Your task to perform on an android device: turn on priority inbox in the gmail app Image 0: 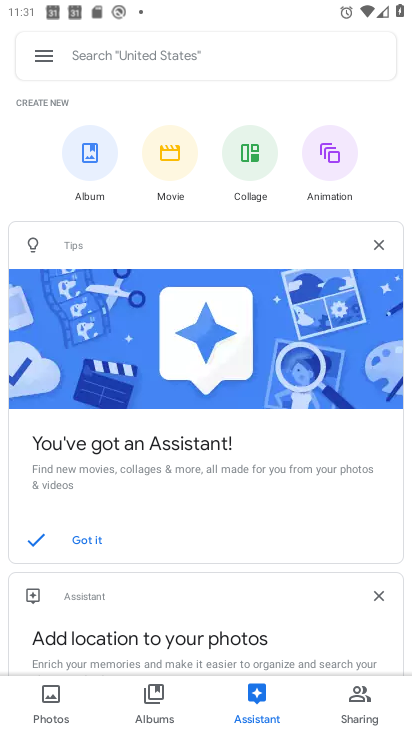
Step 0: press back button
Your task to perform on an android device: turn on priority inbox in the gmail app Image 1: 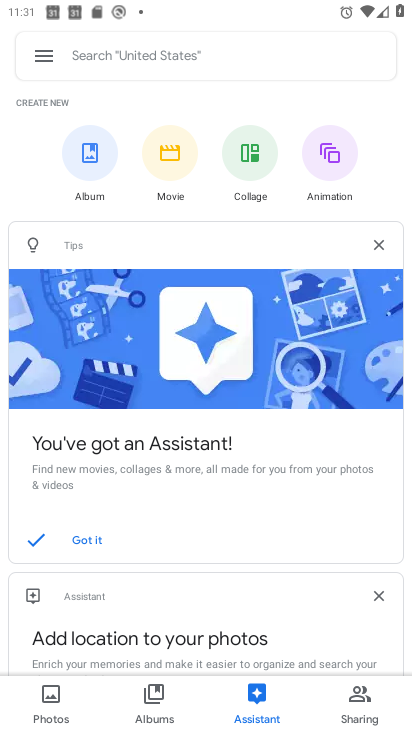
Step 1: press back button
Your task to perform on an android device: turn on priority inbox in the gmail app Image 2: 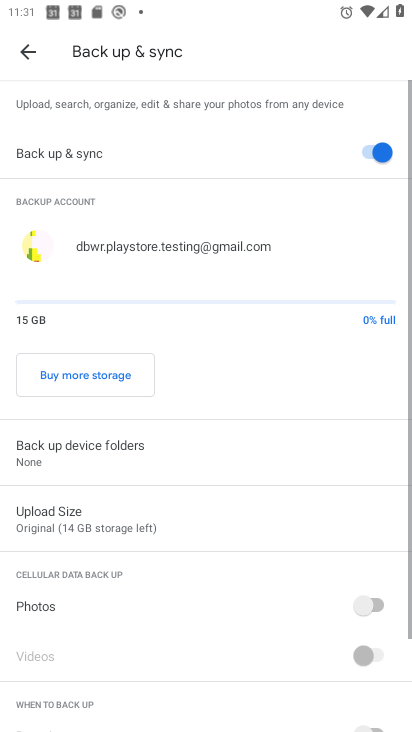
Step 2: press back button
Your task to perform on an android device: turn on priority inbox in the gmail app Image 3: 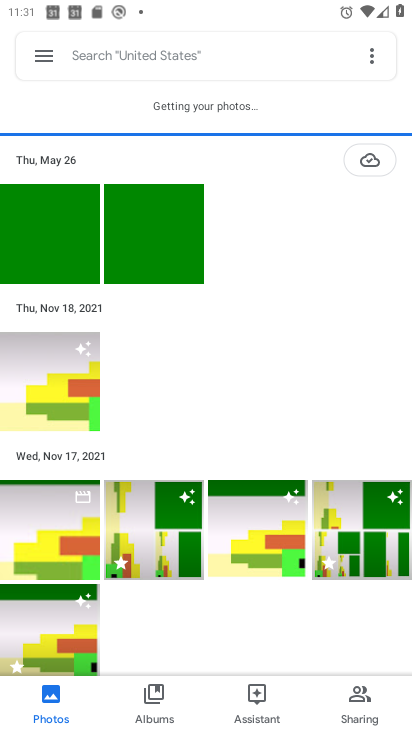
Step 3: press home button
Your task to perform on an android device: turn on priority inbox in the gmail app Image 4: 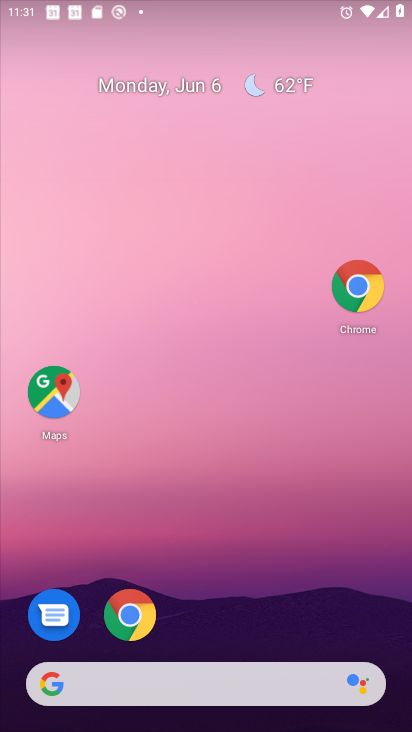
Step 4: drag from (294, 688) to (118, 112)
Your task to perform on an android device: turn on priority inbox in the gmail app Image 5: 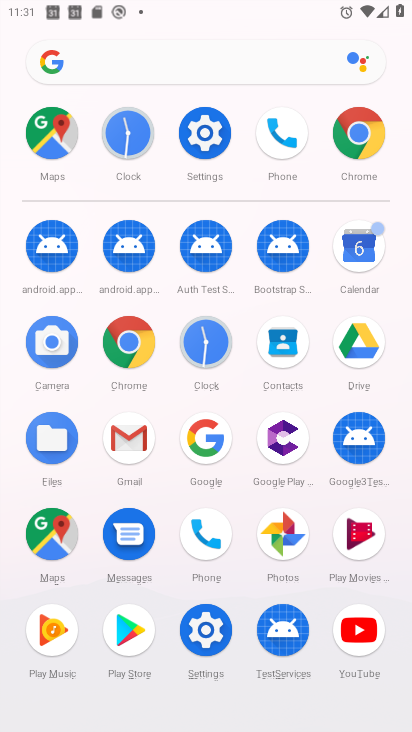
Step 5: click (134, 445)
Your task to perform on an android device: turn on priority inbox in the gmail app Image 6: 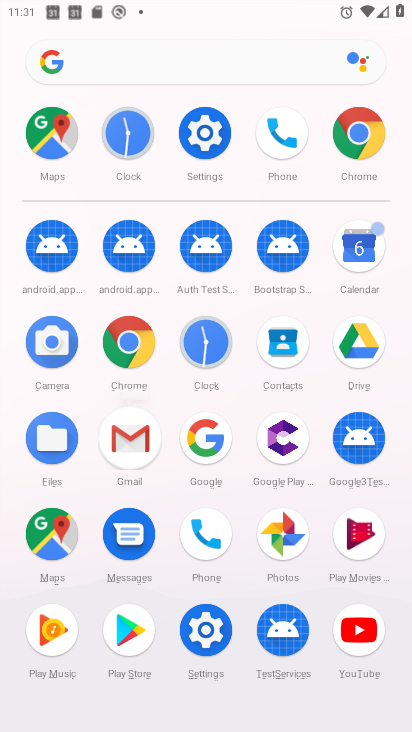
Step 6: click (134, 445)
Your task to perform on an android device: turn on priority inbox in the gmail app Image 7: 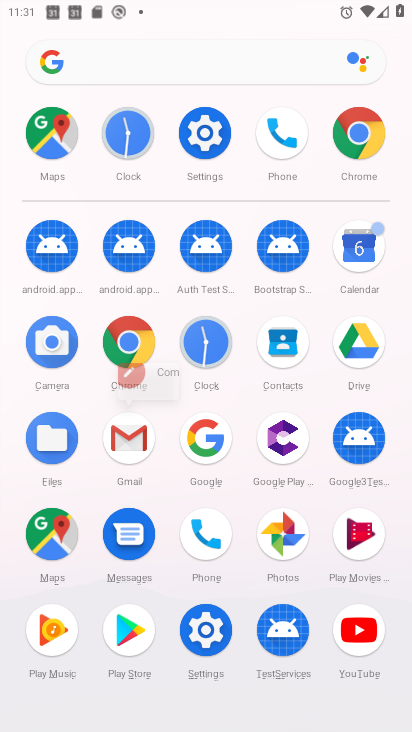
Step 7: click (134, 445)
Your task to perform on an android device: turn on priority inbox in the gmail app Image 8: 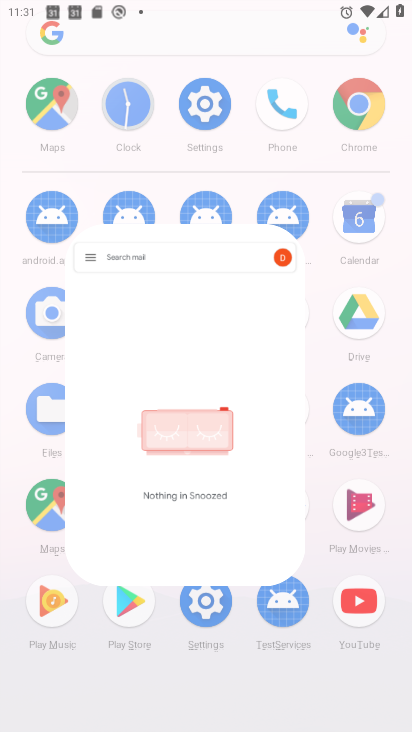
Step 8: click (134, 445)
Your task to perform on an android device: turn on priority inbox in the gmail app Image 9: 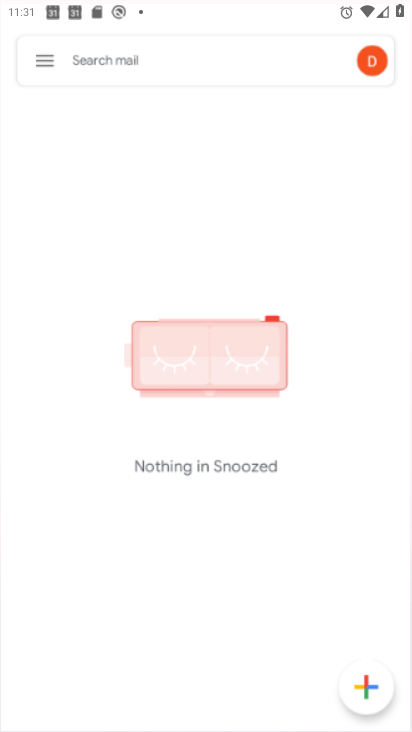
Step 9: click (134, 445)
Your task to perform on an android device: turn on priority inbox in the gmail app Image 10: 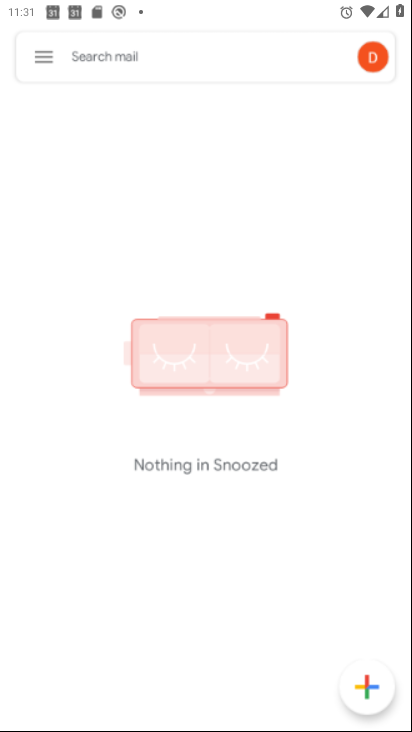
Step 10: click (134, 445)
Your task to perform on an android device: turn on priority inbox in the gmail app Image 11: 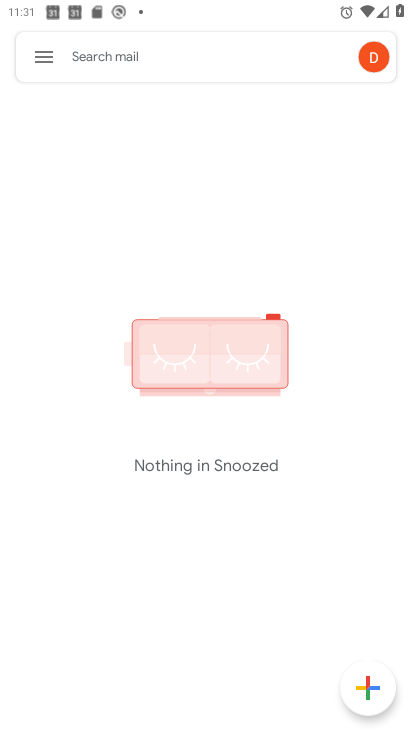
Step 11: click (38, 51)
Your task to perform on an android device: turn on priority inbox in the gmail app Image 12: 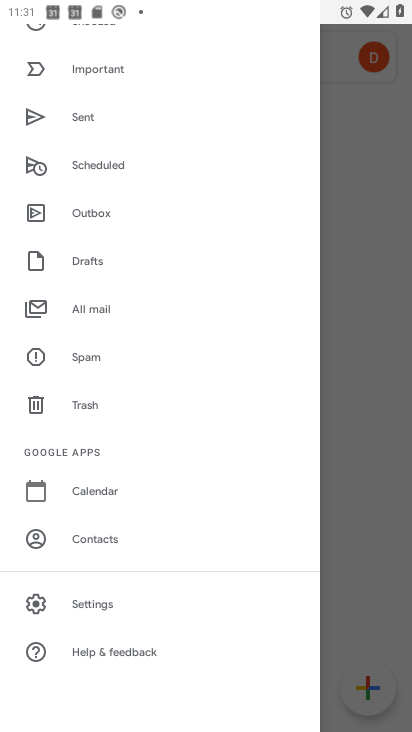
Step 12: click (95, 597)
Your task to perform on an android device: turn on priority inbox in the gmail app Image 13: 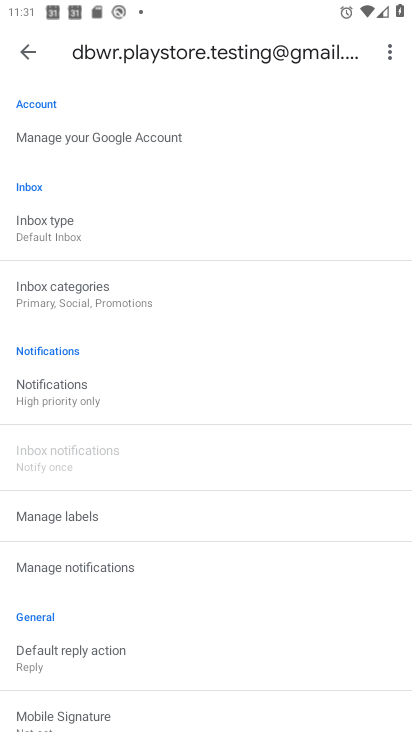
Step 13: click (44, 220)
Your task to perform on an android device: turn on priority inbox in the gmail app Image 14: 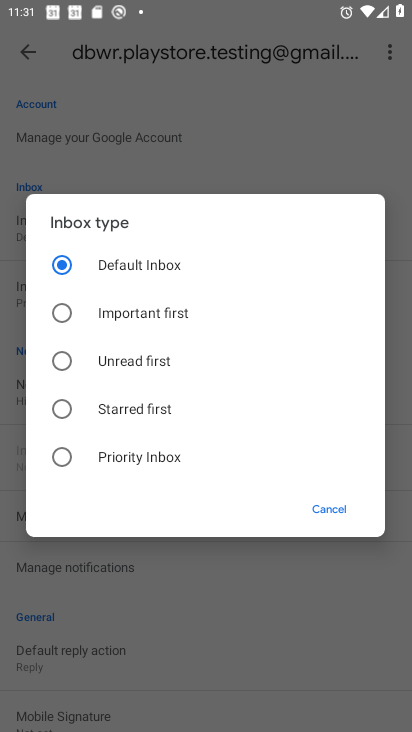
Step 14: click (58, 449)
Your task to perform on an android device: turn on priority inbox in the gmail app Image 15: 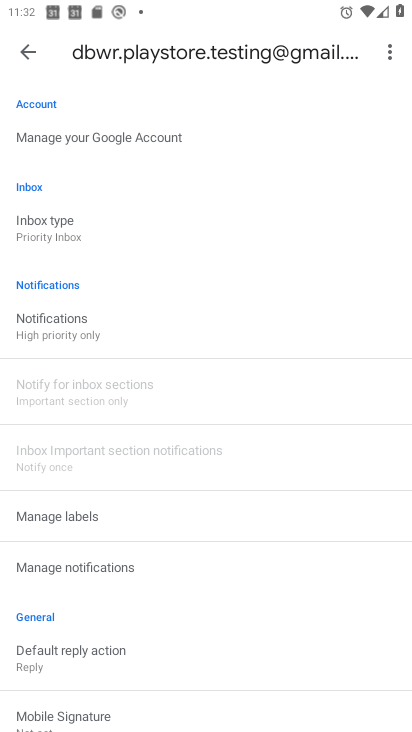
Step 15: task complete